Your task to perform on an android device: open app "Facebook Lite" (install if not already installed), go to login, and select forgot password Image 0: 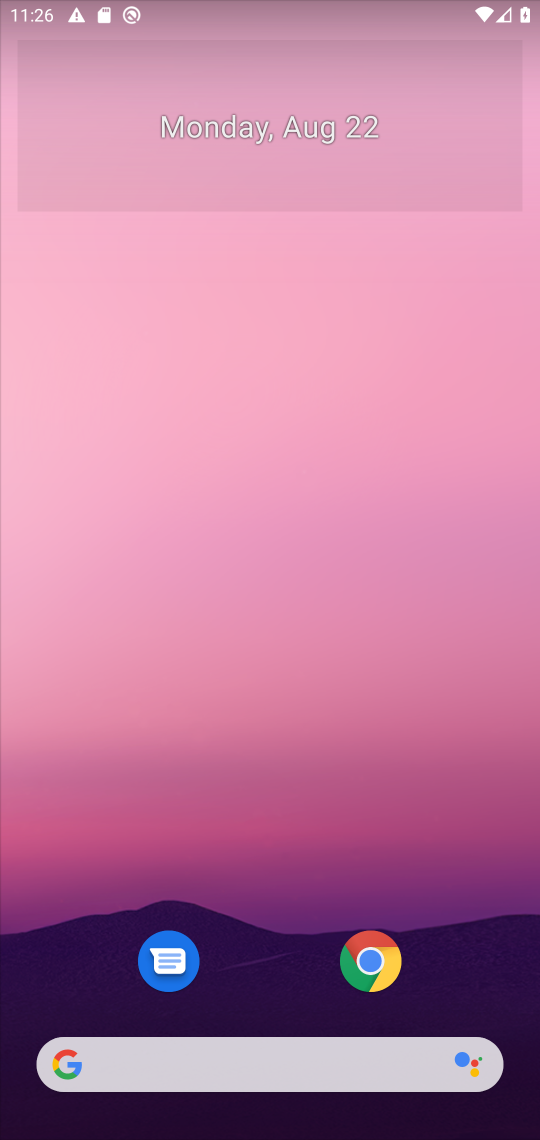
Step 0: drag from (277, 1008) to (290, 85)
Your task to perform on an android device: open app "Facebook Lite" (install if not already installed), go to login, and select forgot password Image 1: 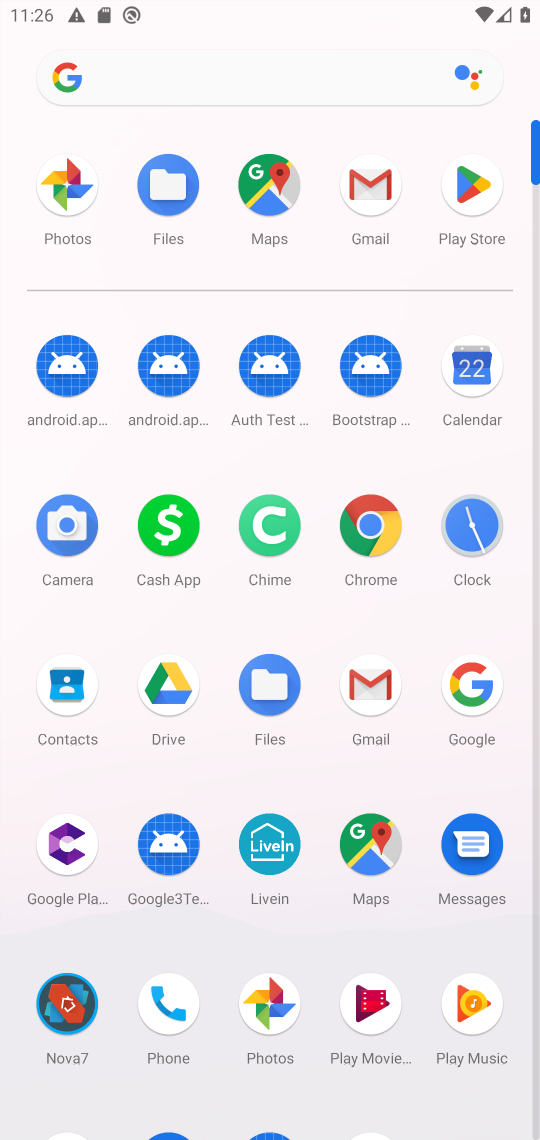
Step 1: click (444, 201)
Your task to perform on an android device: open app "Facebook Lite" (install if not already installed), go to login, and select forgot password Image 2: 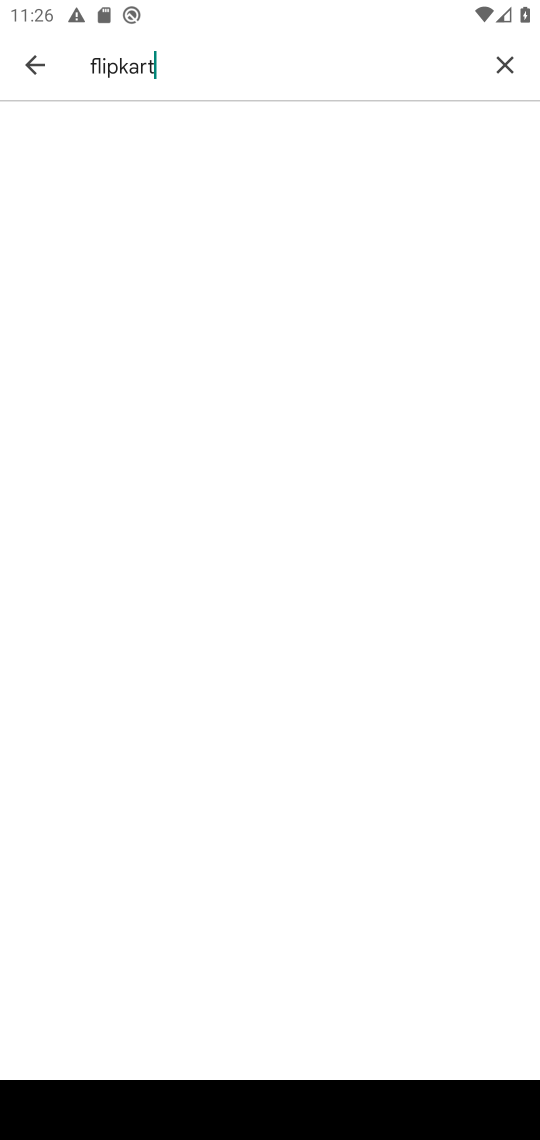
Step 2: click (505, 91)
Your task to perform on an android device: open app "Facebook Lite" (install if not already installed), go to login, and select forgot password Image 3: 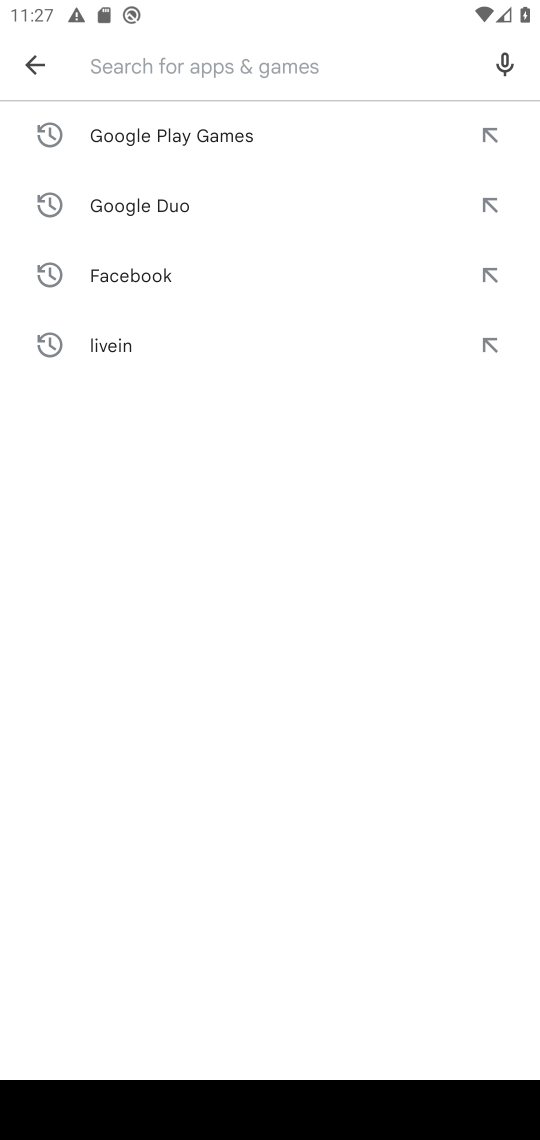
Step 3: type "facebook lite"
Your task to perform on an android device: open app "Facebook Lite" (install if not already installed), go to login, and select forgot password Image 4: 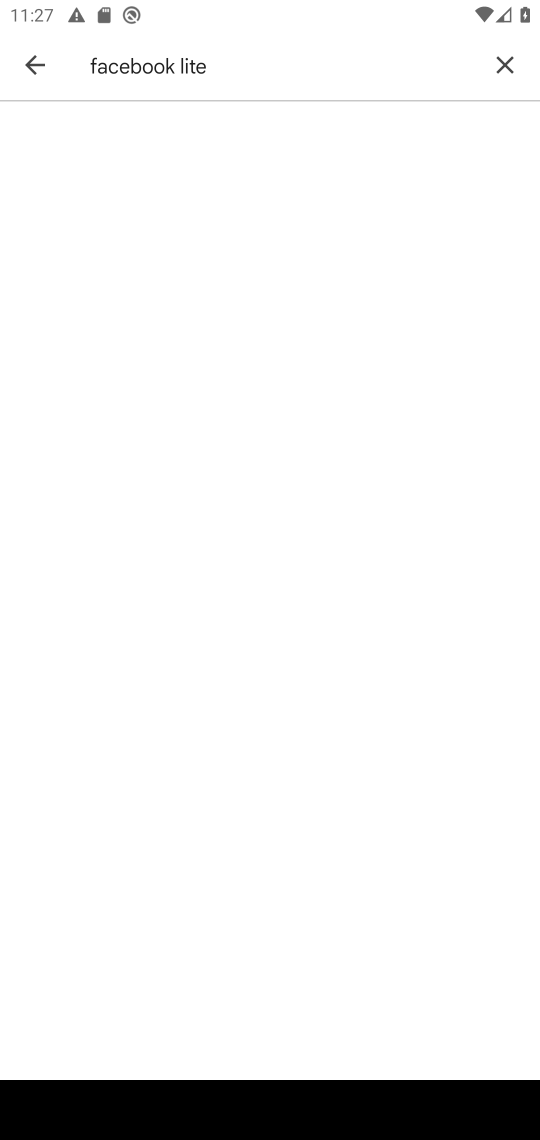
Step 4: task complete